Your task to perform on an android device: turn on javascript in the chrome app Image 0: 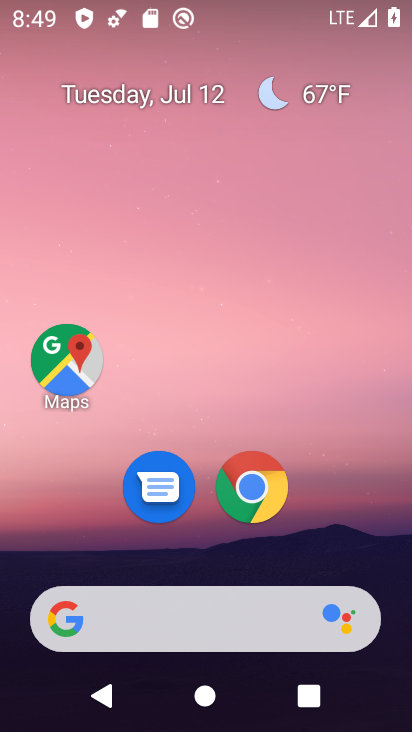
Step 0: drag from (243, 534) to (238, 59)
Your task to perform on an android device: turn on javascript in the chrome app Image 1: 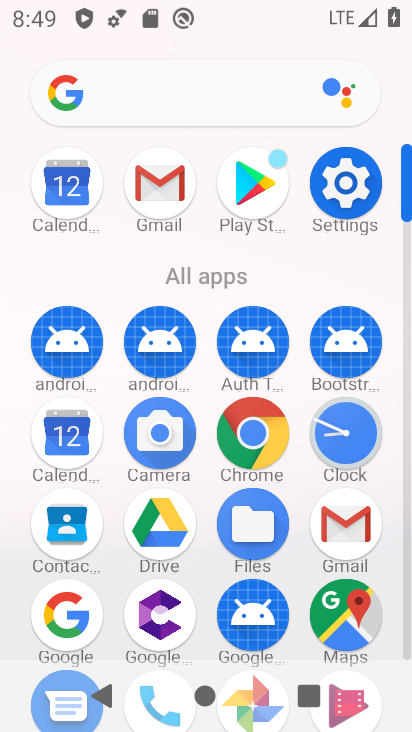
Step 1: click (259, 429)
Your task to perform on an android device: turn on javascript in the chrome app Image 2: 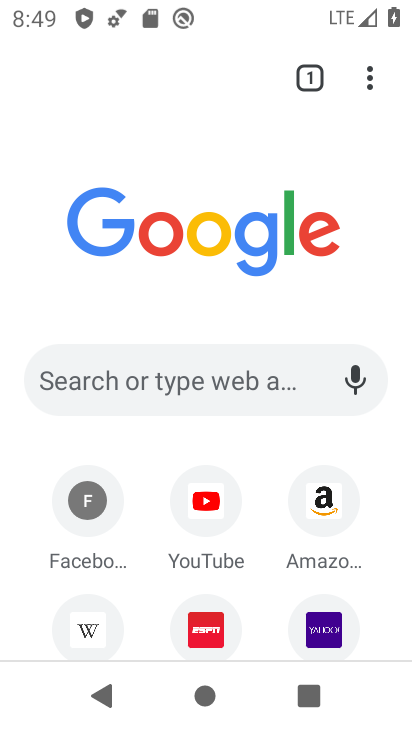
Step 2: drag from (382, 68) to (129, 540)
Your task to perform on an android device: turn on javascript in the chrome app Image 3: 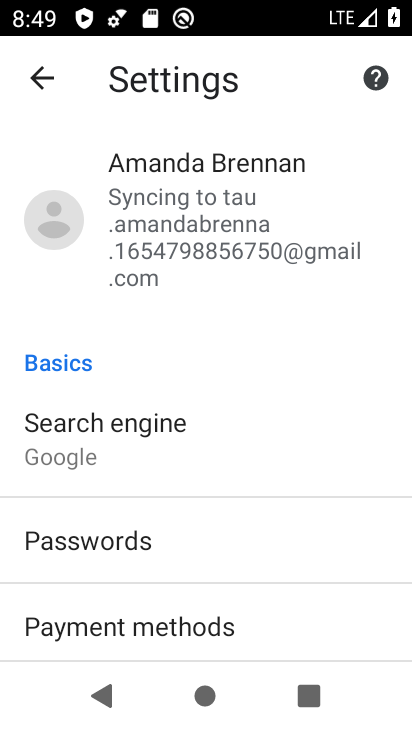
Step 3: drag from (187, 611) to (247, 164)
Your task to perform on an android device: turn on javascript in the chrome app Image 4: 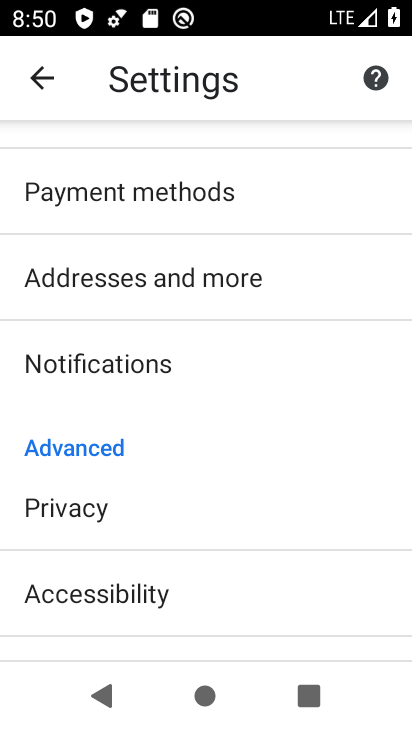
Step 4: drag from (126, 589) to (190, 164)
Your task to perform on an android device: turn on javascript in the chrome app Image 5: 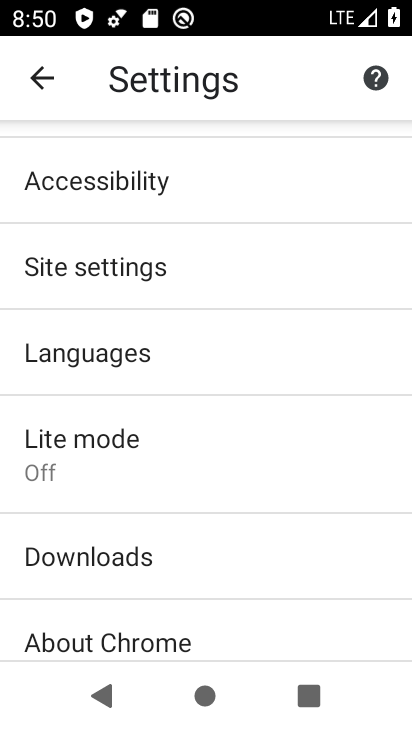
Step 5: click (109, 277)
Your task to perform on an android device: turn on javascript in the chrome app Image 6: 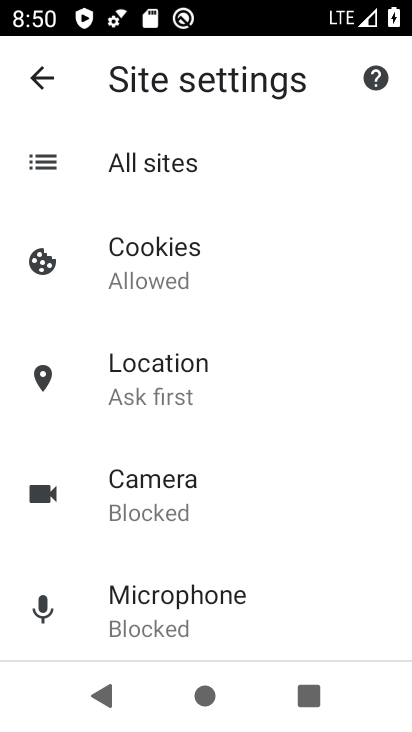
Step 6: drag from (152, 621) to (244, 193)
Your task to perform on an android device: turn on javascript in the chrome app Image 7: 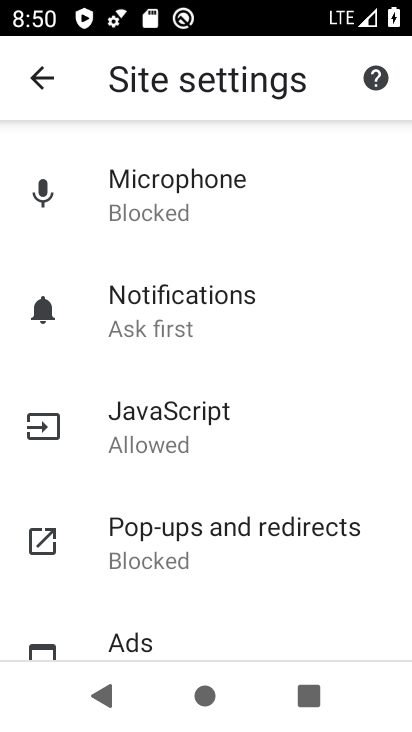
Step 7: click (201, 419)
Your task to perform on an android device: turn on javascript in the chrome app Image 8: 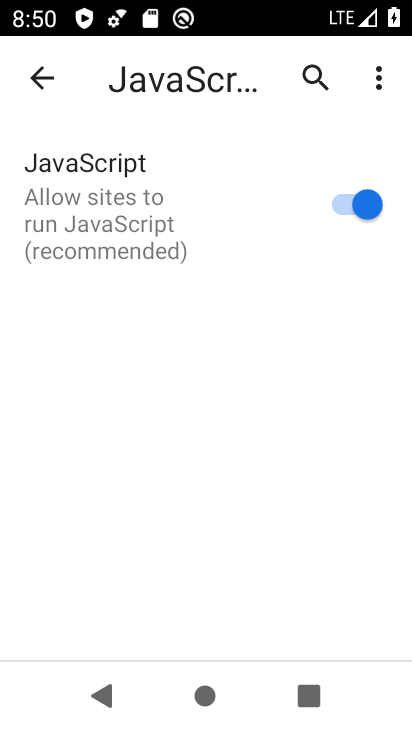
Step 8: task complete